Your task to perform on an android device: search for starred emails in the gmail app Image 0: 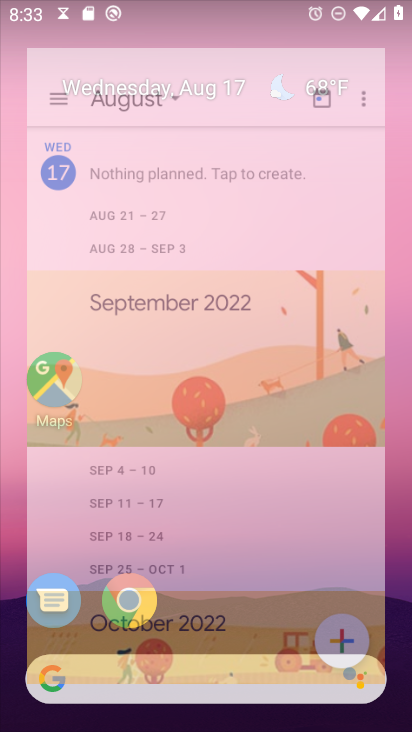
Step 0: press home button
Your task to perform on an android device: search for starred emails in the gmail app Image 1: 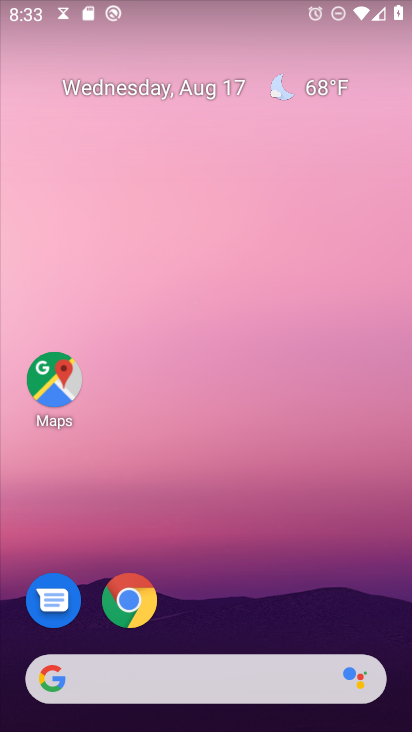
Step 1: drag from (249, 624) to (151, 94)
Your task to perform on an android device: search for starred emails in the gmail app Image 2: 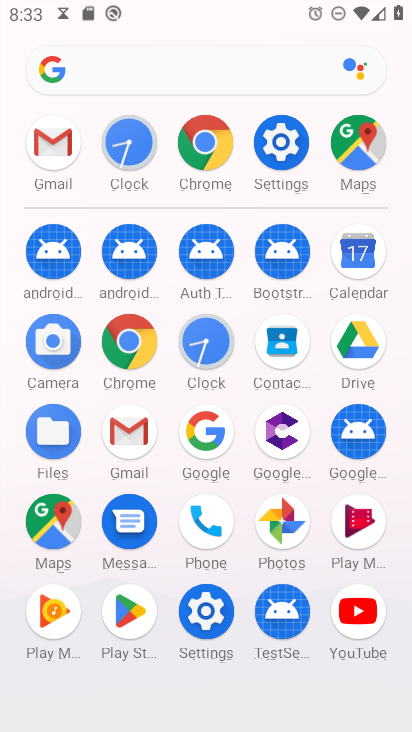
Step 2: click (54, 139)
Your task to perform on an android device: search for starred emails in the gmail app Image 3: 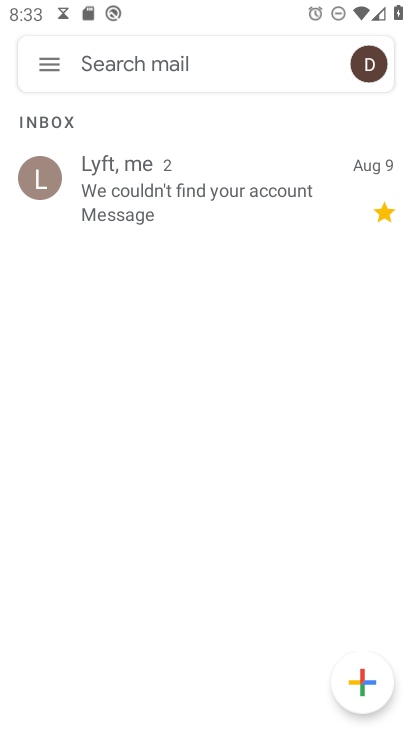
Step 3: click (35, 62)
Your task to perform on an android device: search for starred emails in the gmail app Image 4: 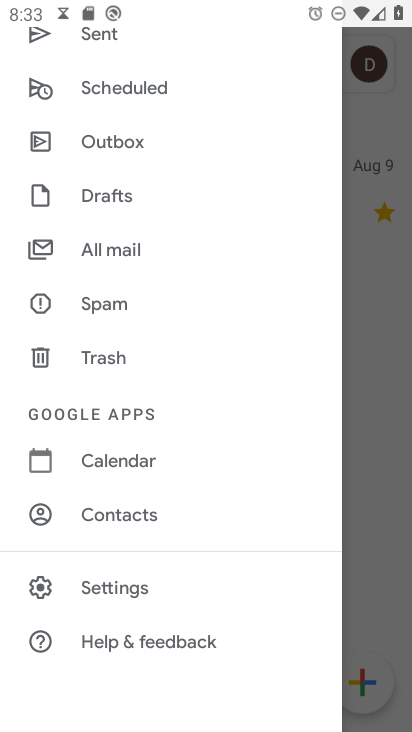
Step 4: drag from (137, 59) to (148, 378)
Your task to perform on an android device: search for starred emails in the gmail app Image 5: 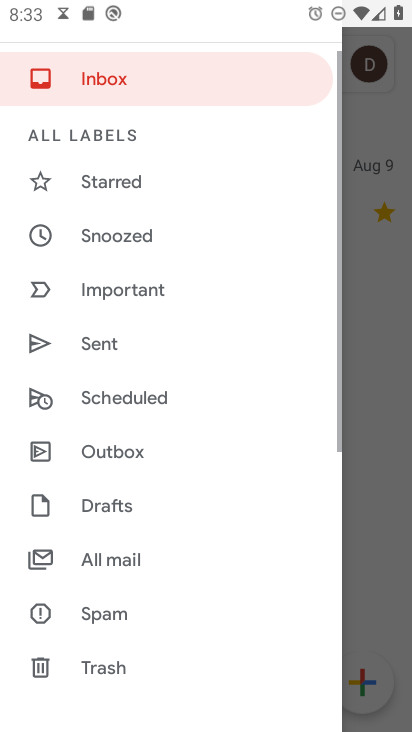
Step 5: click (78, 181)
Your task to perform on an android device: search for starred emails in the gmail app Image 6: 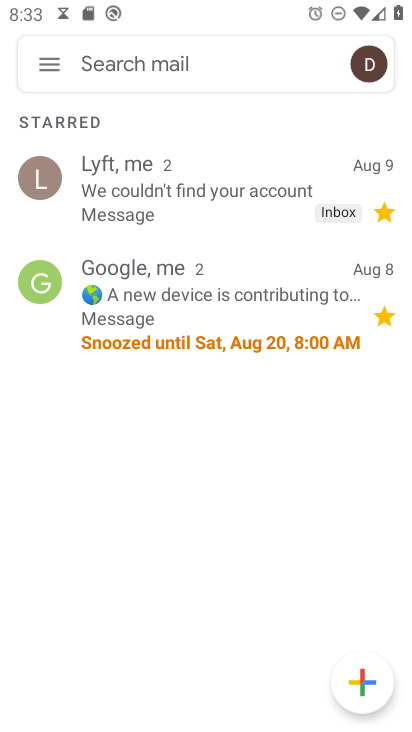
Step 6: task complete